Your task to perform on an android device: Go to location settings Image 0: 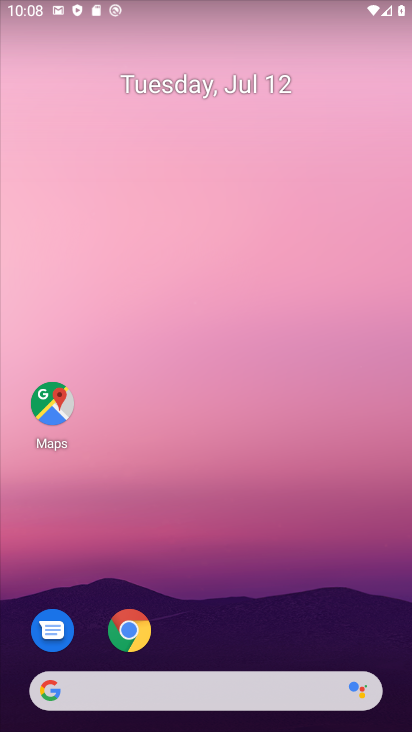
Step 0: drag from (338, 601) to (291, 191)
Your task to perform on an android device: Go to location settings Image 1: 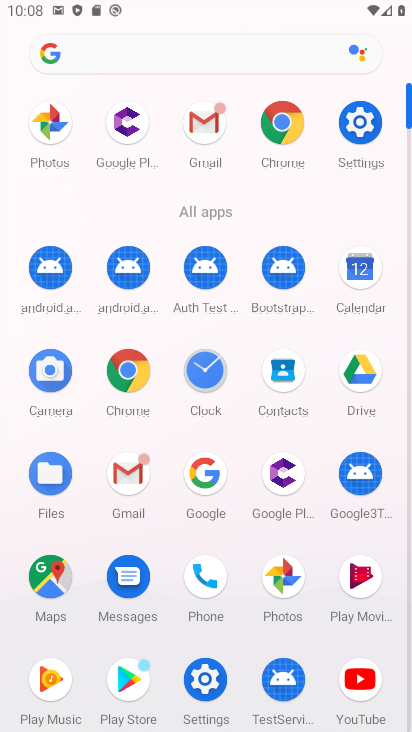
Step 1: click (355, 130)
Your task to perform on an android device: Go to location settings Image 2: 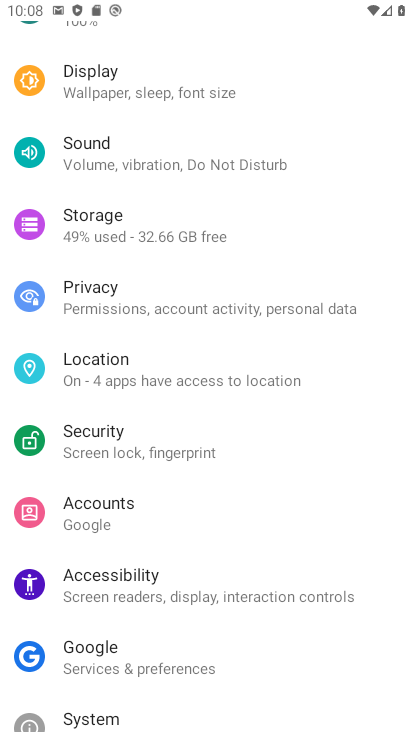
Step 2: drag from (354, 212) to (374, 329)
Your task to perform on an android device: Go to location settings Image 3: 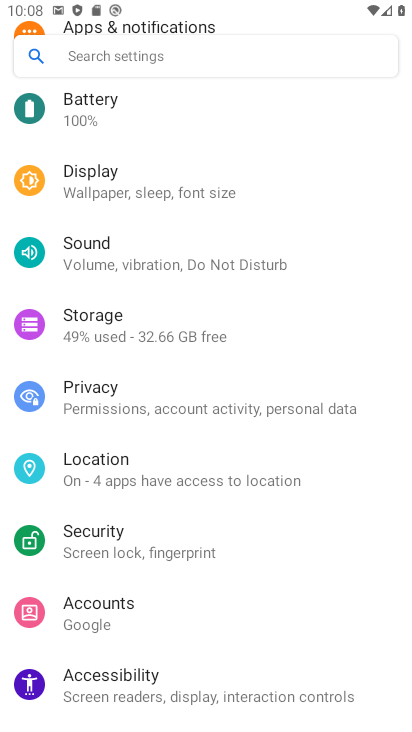
Step 3: drag from (368, 224) to (368, 374)
Your task to perform on an android device: Go to location settings Image 4: 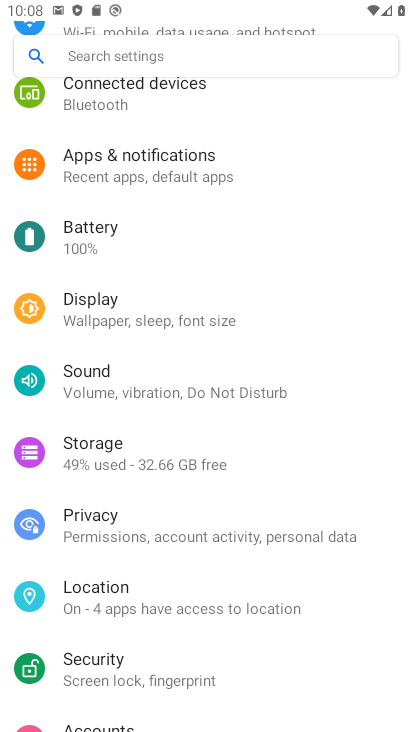
Step 4: drag from (351, 467) to (336, 252)
Your task to perform on an android device: Go to location settings Image 5: 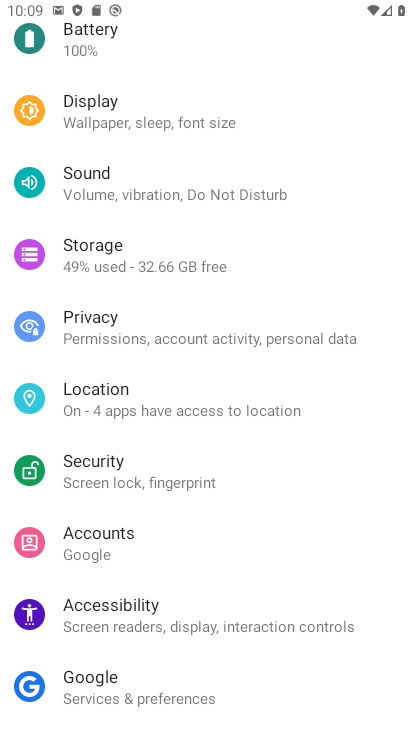
Step 5: drag from (334, 444) to (327, 308)
Your task to perform on an android device: Go to location settings Image 6: 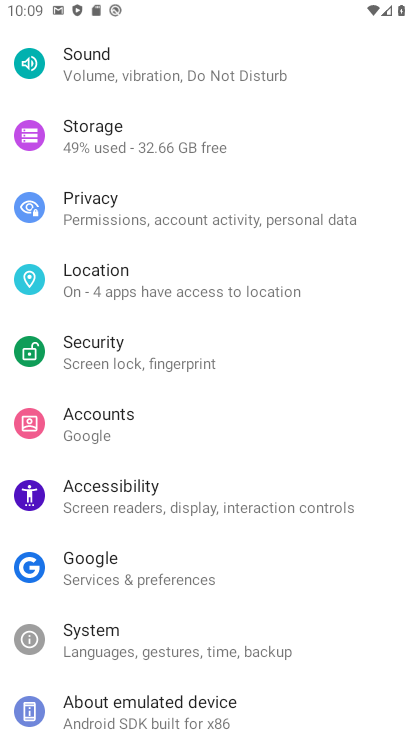
Step 6: drag from (335, 414) to (336, 234)
Your task to perform on an android device: Go to location settings Image 7: 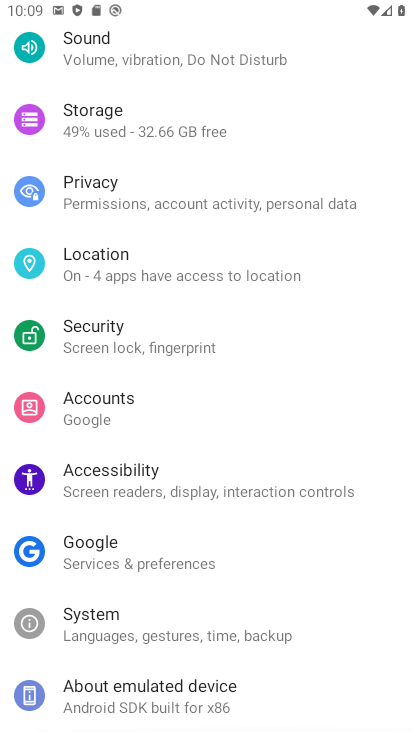
Step 7: click (295, 267)
Your task to perform on an android device: Go to location settings Image 8: 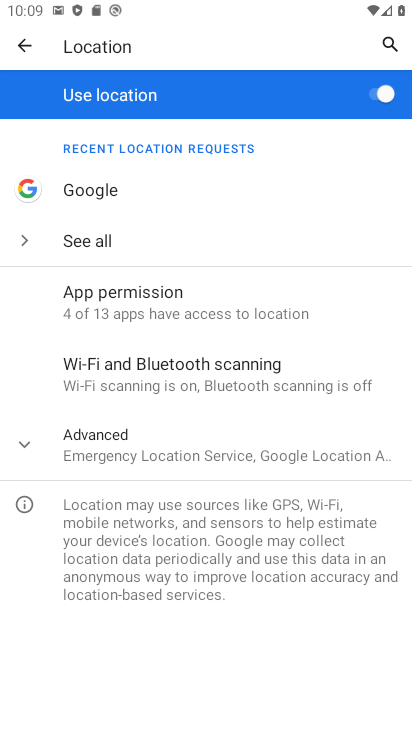
Step 8: task complete